Your task to perform on an android device: Open calendar and show me the second week of next month Image 0: 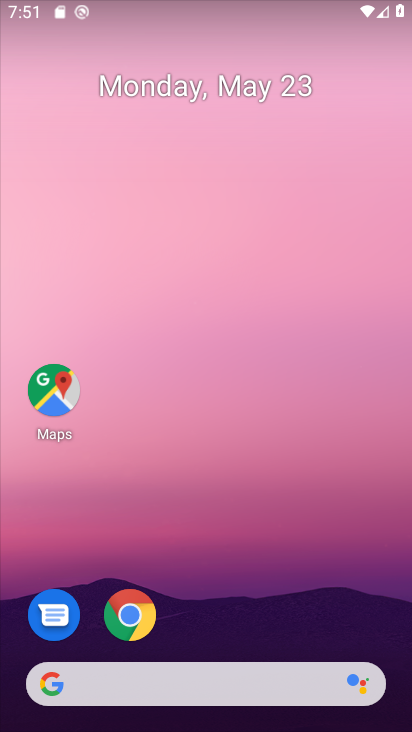
Step 0: drag from (278, 575) to (348, 55)
Your task to perform on an android device: Open calendar and show me the second week of next month Image 1: 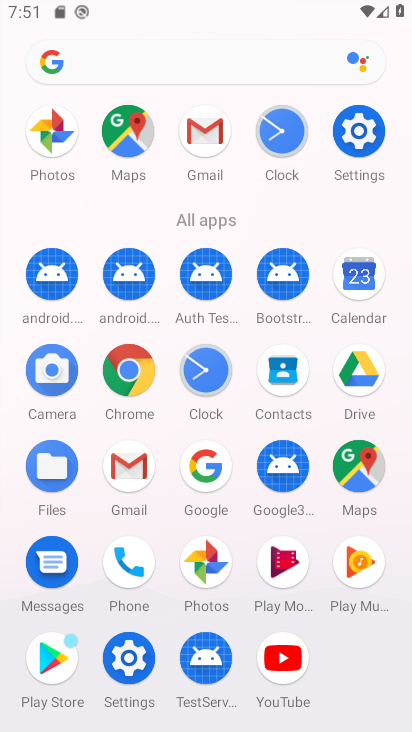
Step 1: click (373, 271)
Your task to perform on an android device: Open calendar and show me the second week of next month Image 2: 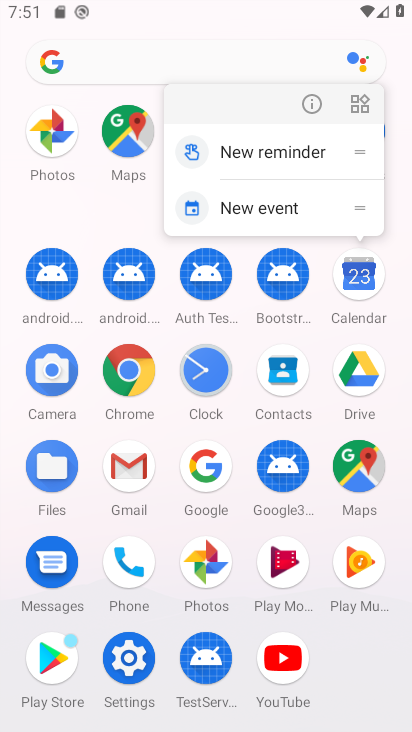
Step 2: click (373, 271)
Your task to perform on an android device: Open calendar and show me the second week of next month Image 3: 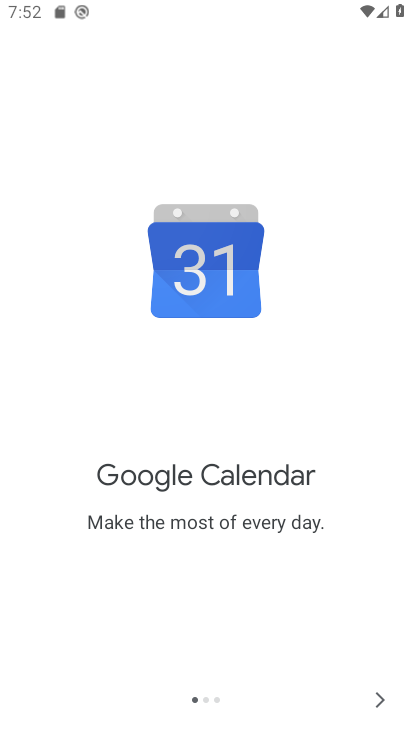
Step 3: click (374, 703)
Your task to perform on an android device: Open calendar and show me the second week of next month Image 4: 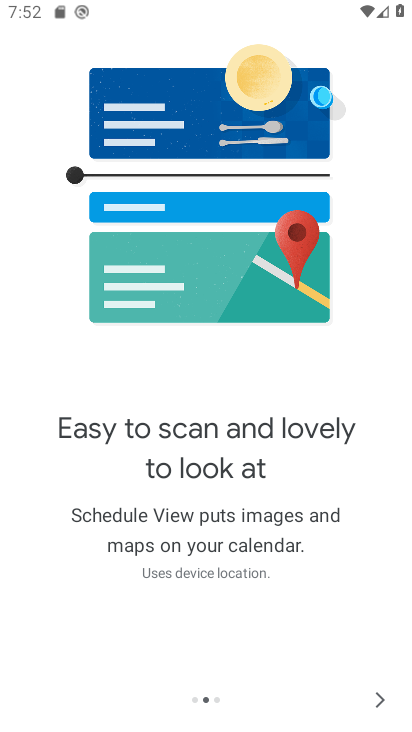
Step 4: click (374, 703)
Your task to perform on an android device: Open calendar and show me the second week of next month Image 5: 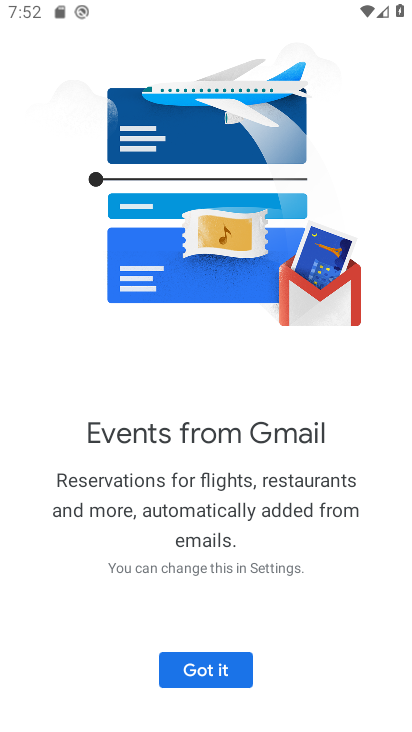
Step 5: click (226, 670)
Your task to perform on an android device: Open calendar and show me the second week of next month Image 6: 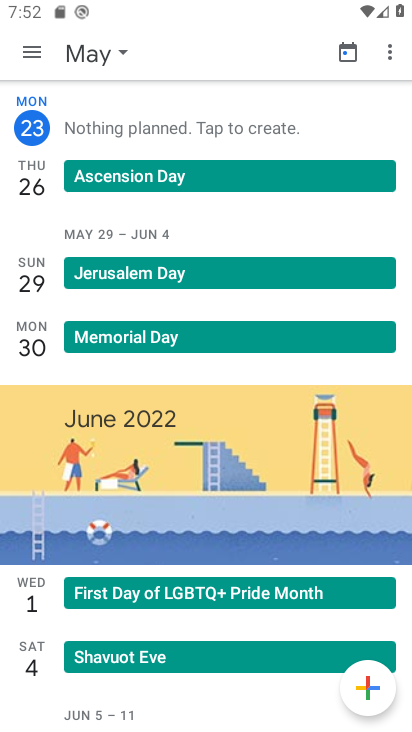
Step 6: click (32, 56)
Your task to perform on an android device: Open calendar and show me the second week of next month Image 7: 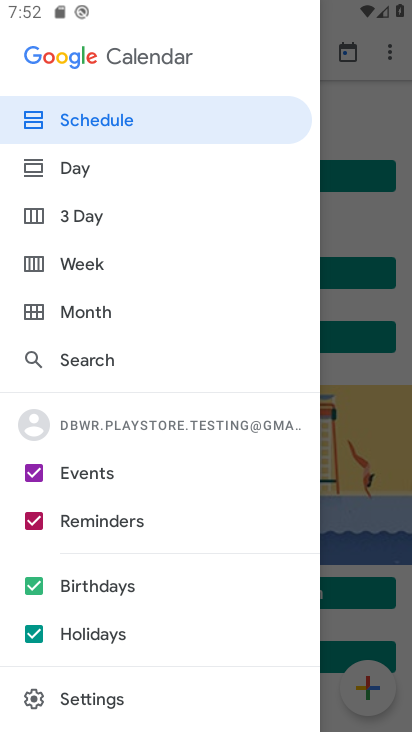
Step 7: click (111, 326)
Your task to perform on an android device: Open calendar and show me the second week of next month Image 8: 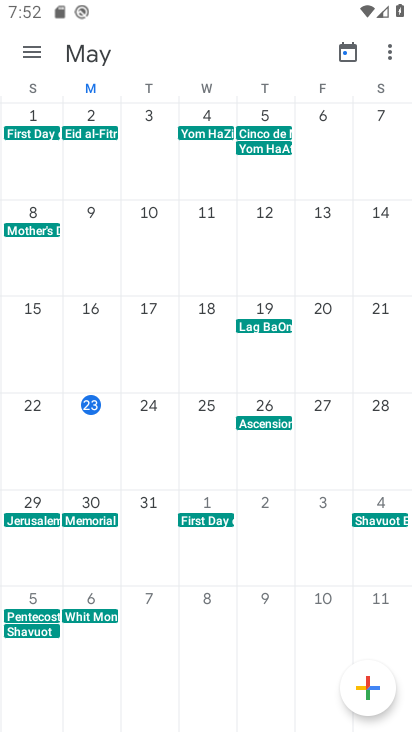
Step 8: task complete